Your task to perform on an android device: turn on location history Image 0: 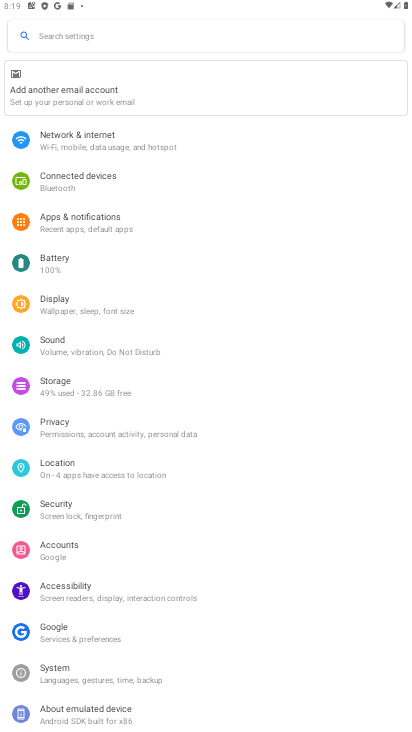
Step 0: click (113, 453)
Your task to perform on an android device: turn on location history Image 1: 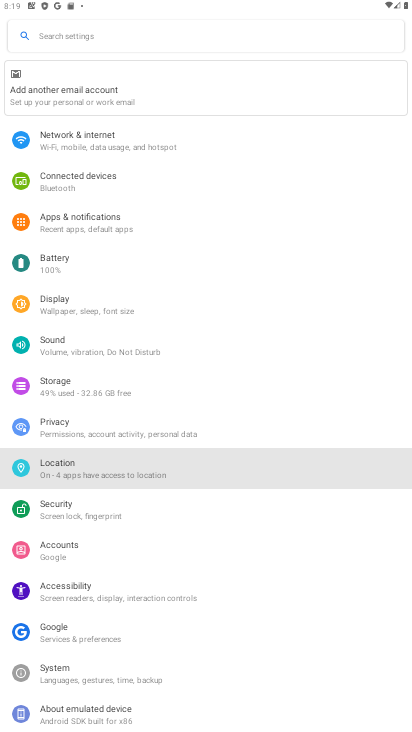
Step 1: task complete